Your task to perform on an android device: turn on wifi Image 0: 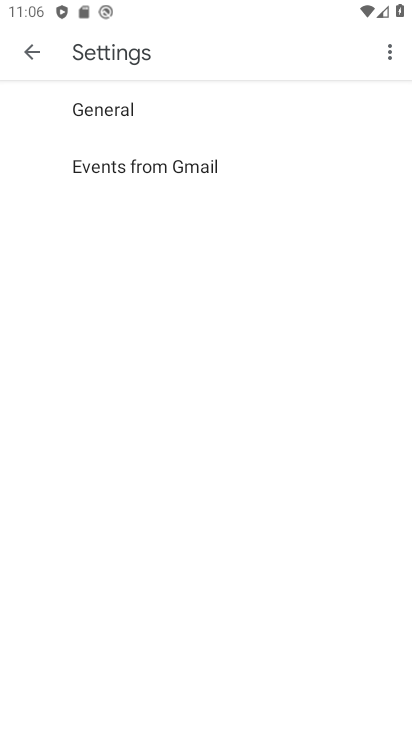
Step 0: press home button
Your task to perform on an android device: turn on wifi Image 1: 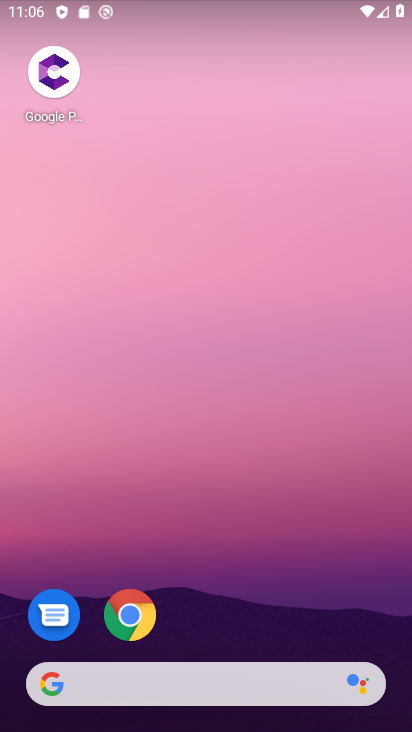
Step 1: drag from (201, 627) to (206, 149)
Your task to perform on an android device: turn on wifi Image 2: 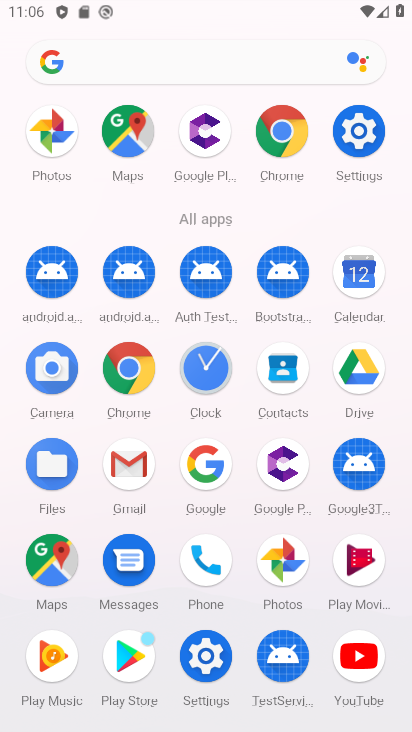
Step 2: click (347, 135)
Your task to perform on an android device: turn on wifi Image 3: 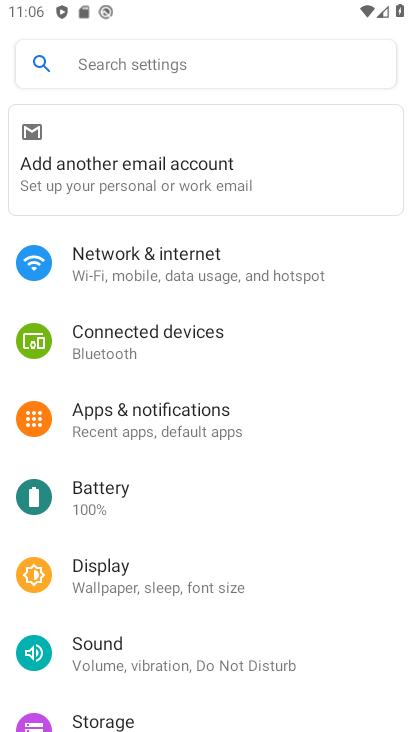
Step 3: click (166, 257)
Your task to perform on an android device: turn on wifi Image 4: 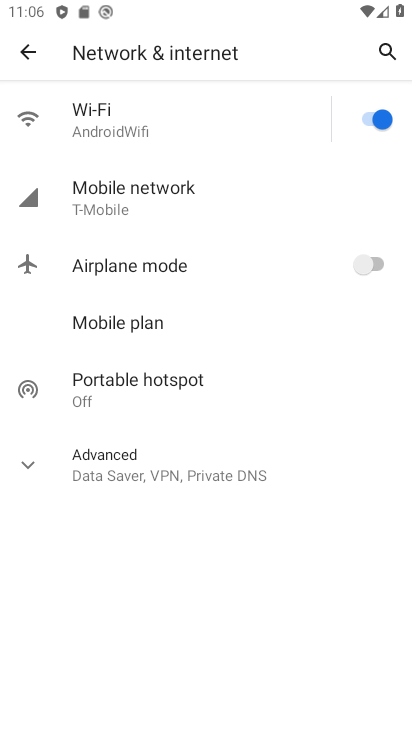
Step 4: task complete